Your task to perform on an android device: check the backup settings in the google photos Image 0: 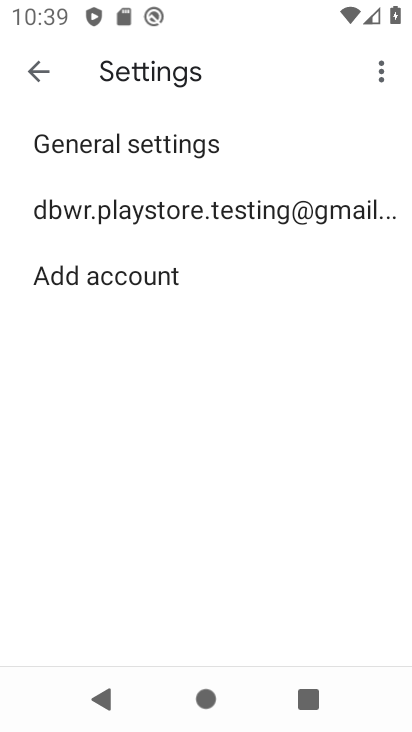
Step 0: press back button
Your task to perform on an android device: check the backup settings in the google photos Image 1: 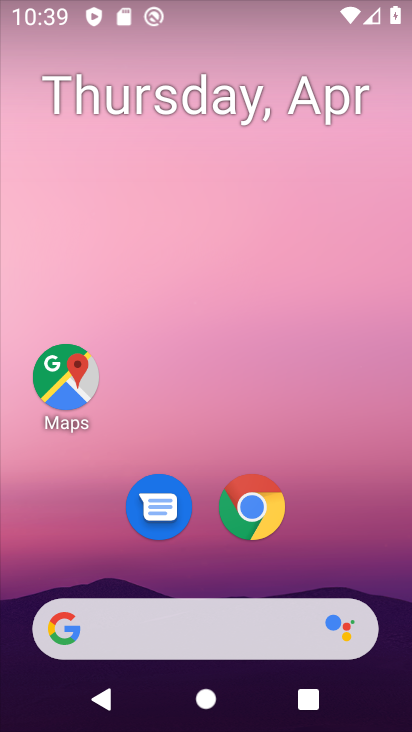
Step 1: drag from (169, 595) to (293, 31)
Your task to perform on an android device: check the backup settings in the google photos Image 2: 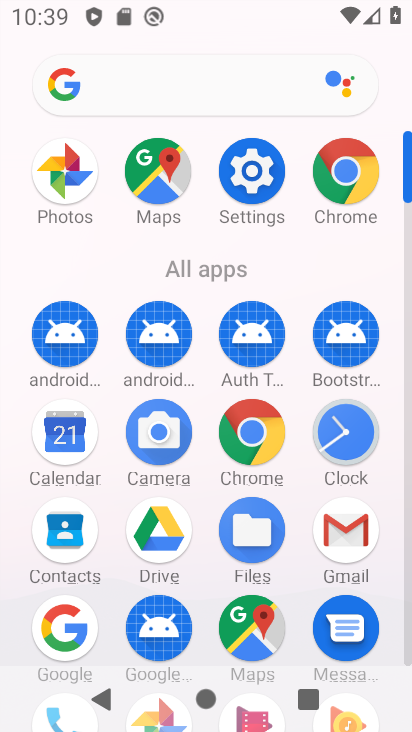
Step 2: drag from (152, 661) to (215, 382)
Your task to perform on an android device: check the backup settings in the google photos Image 3: 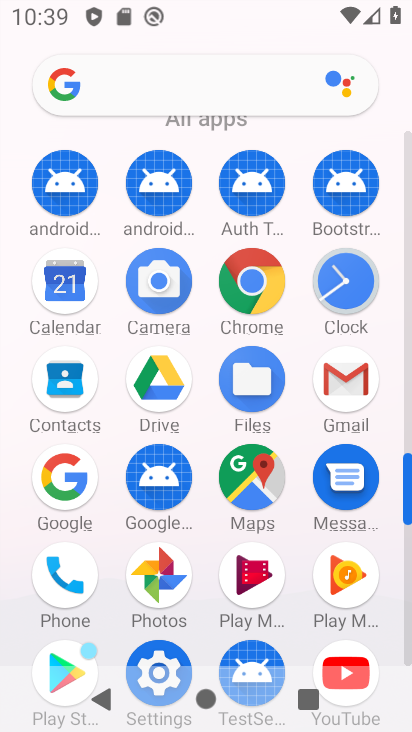
Step 3: click (167, 584)
Your task to perform on an android device: check the backup settings in the google photos Image 4: 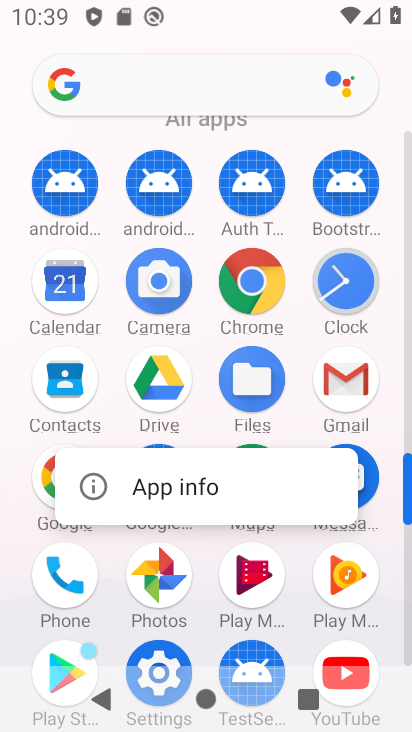
Step 4: click (159, 576)
Your task to perform on an android device: check the backup settings in the google photos Image 5: 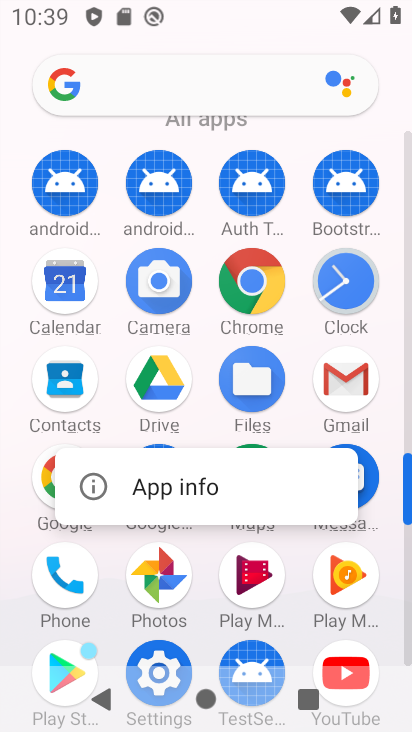
Step 5: click (153, 585)
Your task to perform on an android device: check the backup settings in the google photos Image 6: 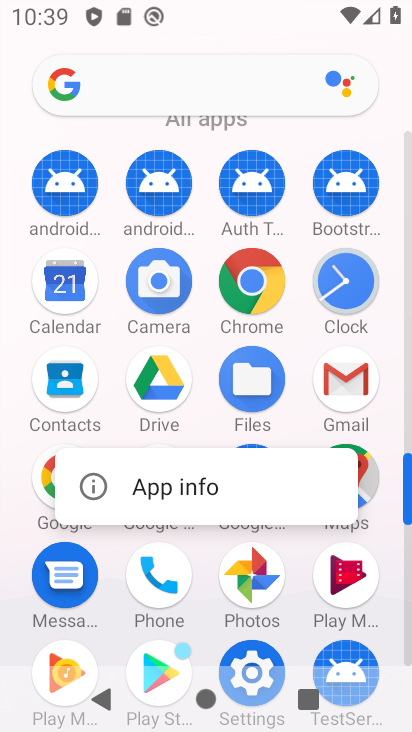
Step 6: click (155, 575)
Your task to perform on an android device: check the backup settings in the google photos Image 7: 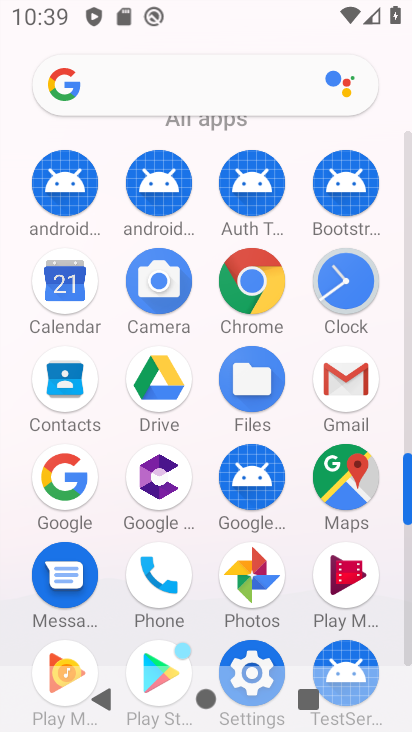
Step 7: click (265, 571)
Your task to perform on an android device: check the backup settings in the google photos Image 8: 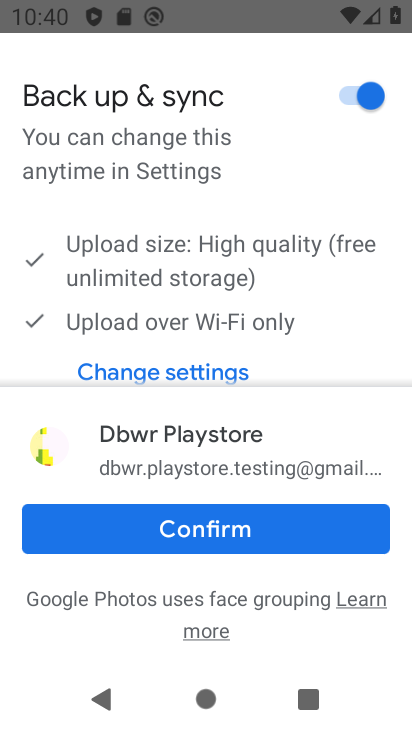
Step 8: click (201, 544)
Your task to perform on an android device: check the backup settings in the google photos Image 9: 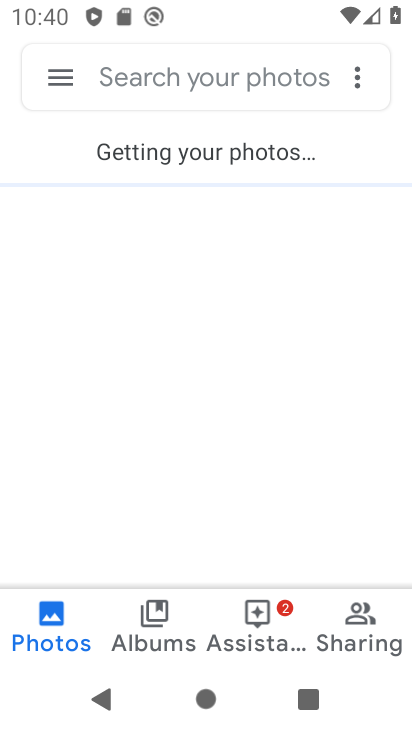
Step 9: click (71, 83)
Your task to perform on an android device: check the backup settings in the google photos Image 10: 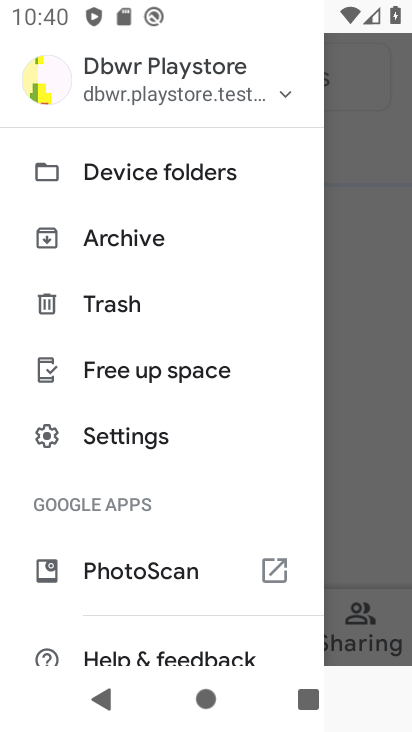
Step 10: click (140, 444)
Your task to perform on an android device: check the backup settings in the google photos Image 11: 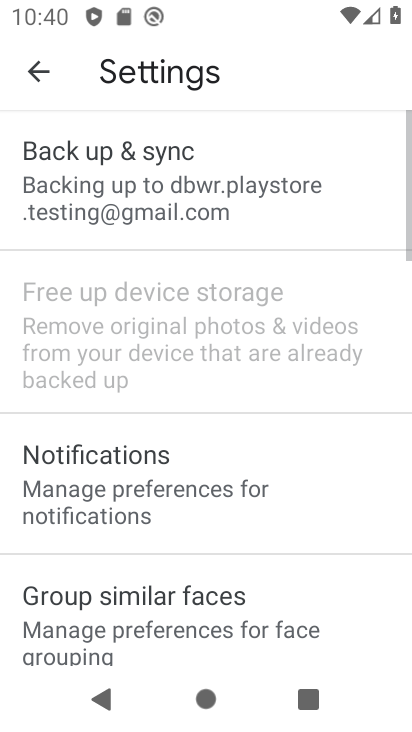
Step 11: click (177, 193)
Your task to perform on an android device: check the backup settings in the google photos Image 12: 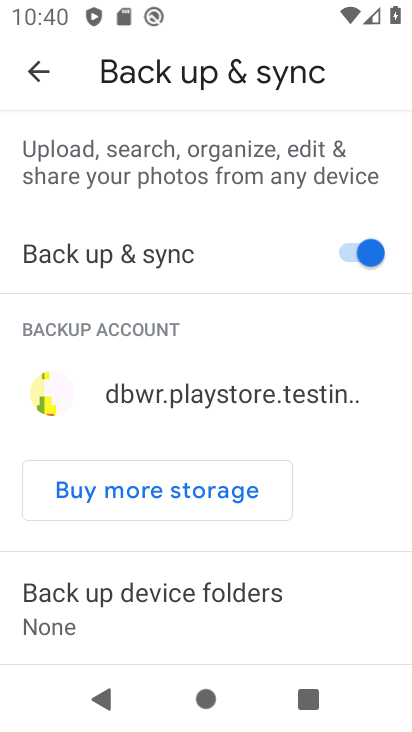
Step 12: task complete